Your task to perform on an android device: set default search engine in the chrome app Image 0: 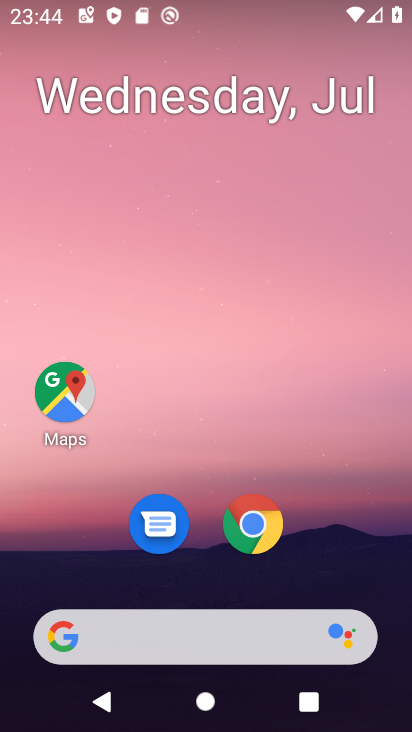
Step 0: click (253, 536)
Your task to perform on an android device: set default search engine in the chrome app Image 1: 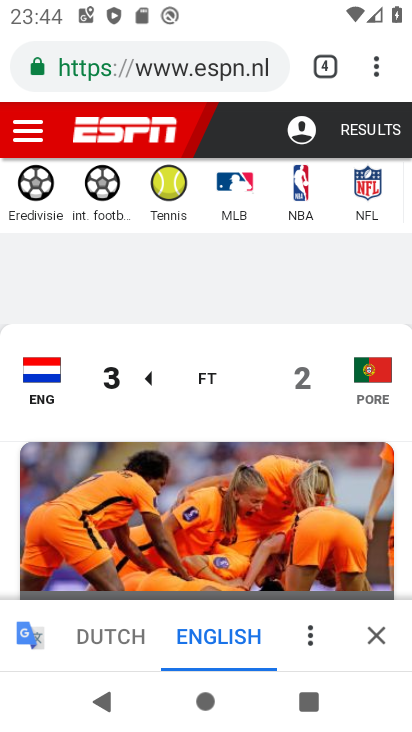
Step 1: drag from (373, 72) to (244, 537)
Your task to perform on an android device: set default search engine in the chrome app Image 2: 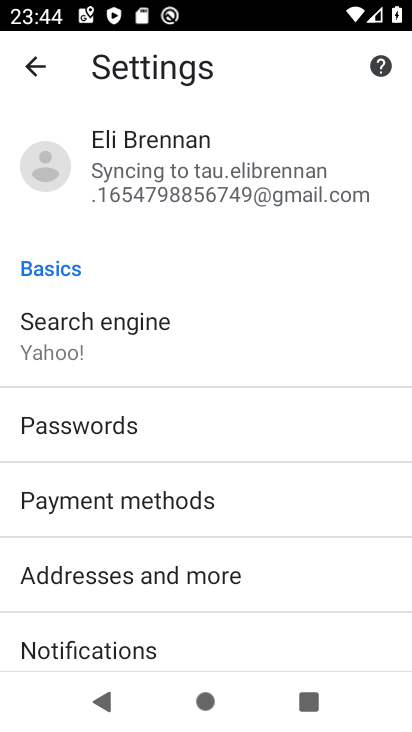
Step 2: click (99, 345)
Your task to perform on an android device: set default search engine in the chrome app Image 3: 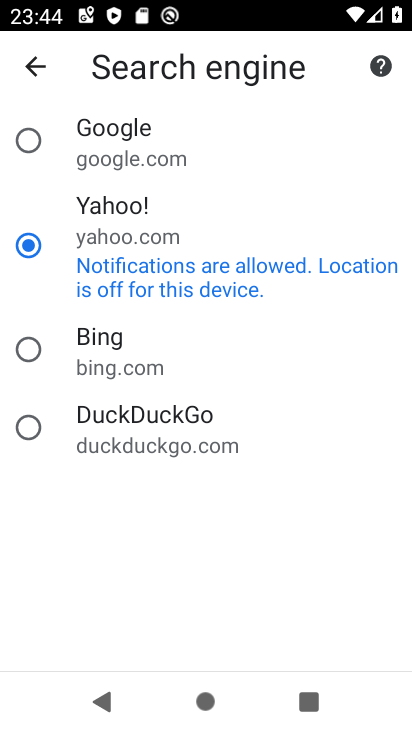
Step 3: click (30, 136)
Your task to perform on an android device: set default search engine in the chrome app Image 4: 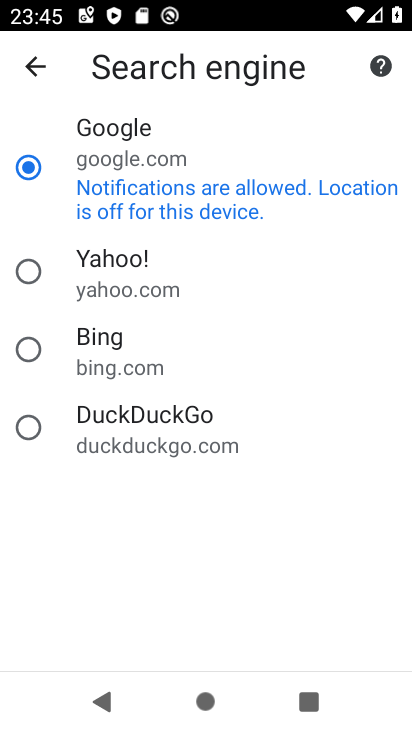
Step 4: task complete